Your task to perform on an android device: Open my contact list Image 0: 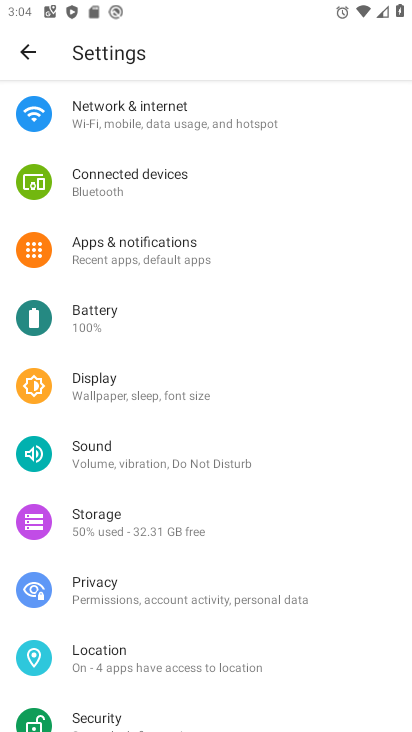
Step 0: press home button
Your task to perform on an android device: Open my contact list Image 1: 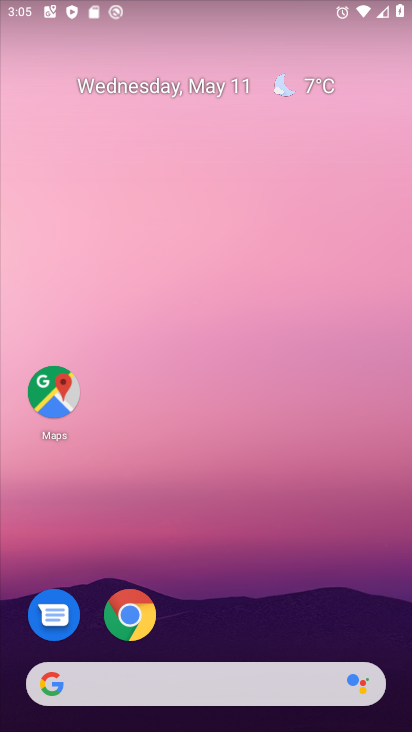
Step 1: drag from (270, 563) to (293, 98)
Your task to perform on an android device: Open my contact list Image 2: 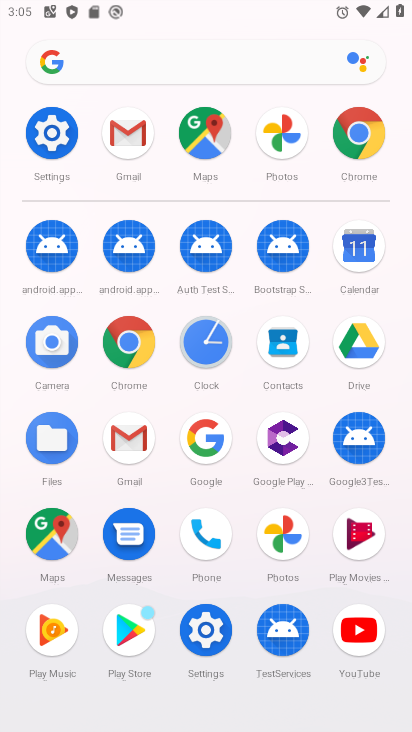
Step 2: click (286, 333)
Your task to perform on an android device: Open my contact list Image 3: 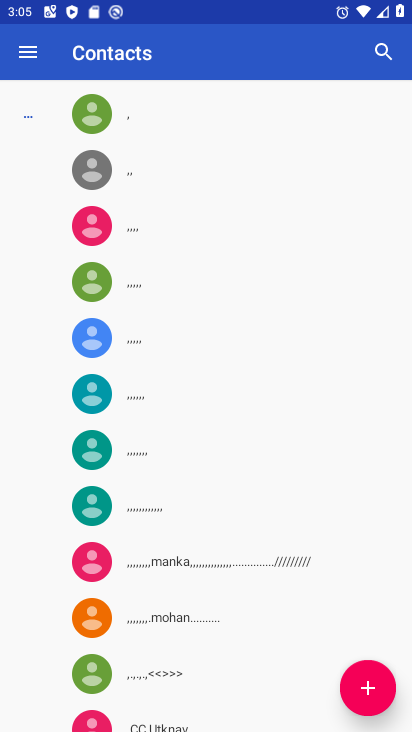
Step 3: task complete